Your task to perform on an android device: change notification settings in the gmail app Image 0: 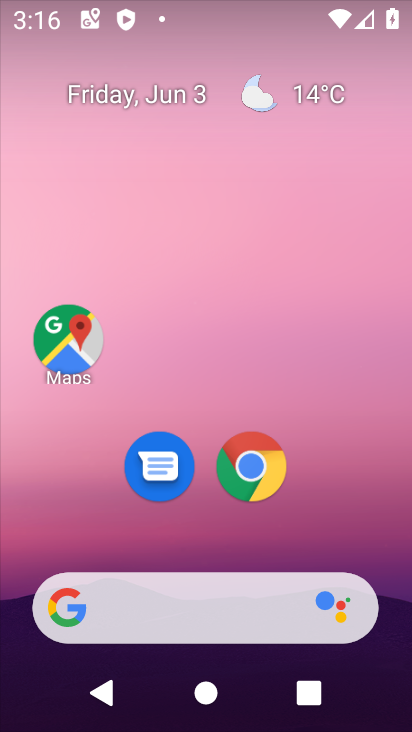
Step 0: drag from (353, 508) to (335, 284)
Your task to perform on an android device: change notification settings in the gmail app Image 1: 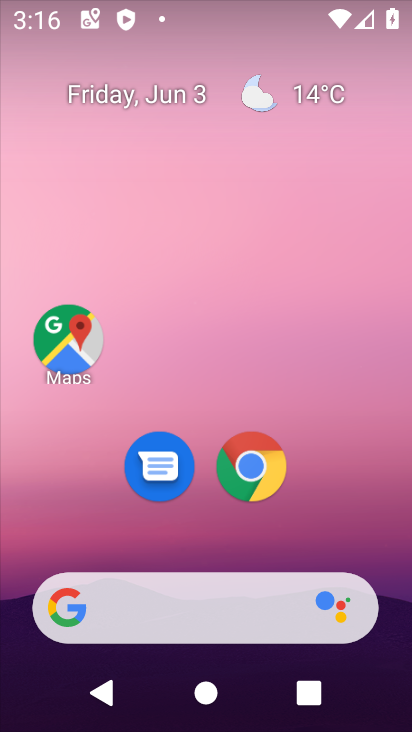
Step 1: drag from (368, 561) to (333, 147)
Your task to perform on an android device: change notification settings in the gmail app Image 2: 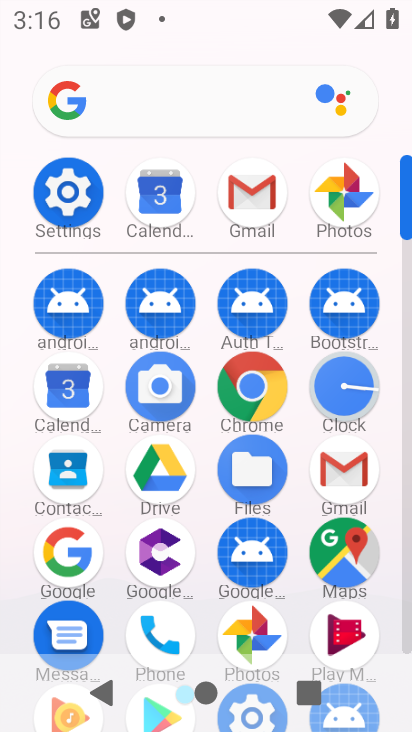
Step 2: click (254, 195)
Your task to perform on an android device: change notification settings in the gmail app Image 3: 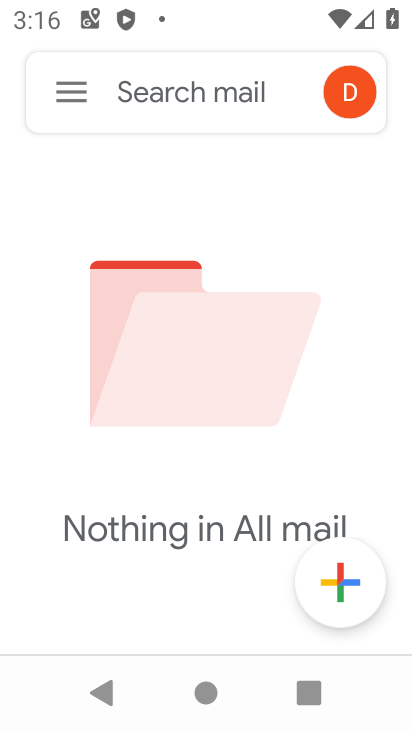
Step 3: click (62, 81)
Your task to perform on an android device: change notification settings in the gmail app Image 4: 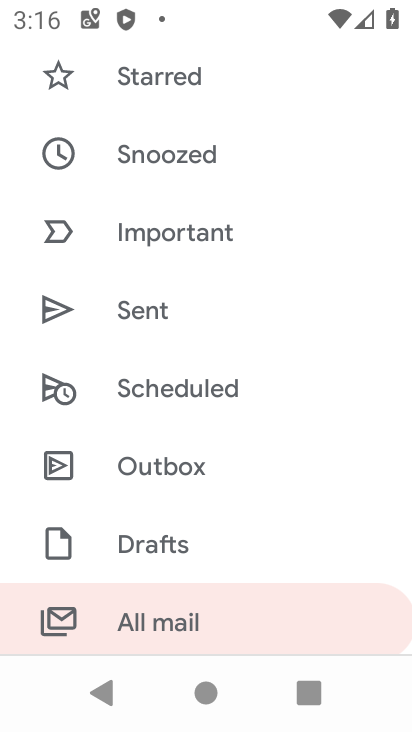
Step 4: drag from (250, 544) to (205, 236)
Your task to perform on an android device: change notification settings in the gmail app Image 5: 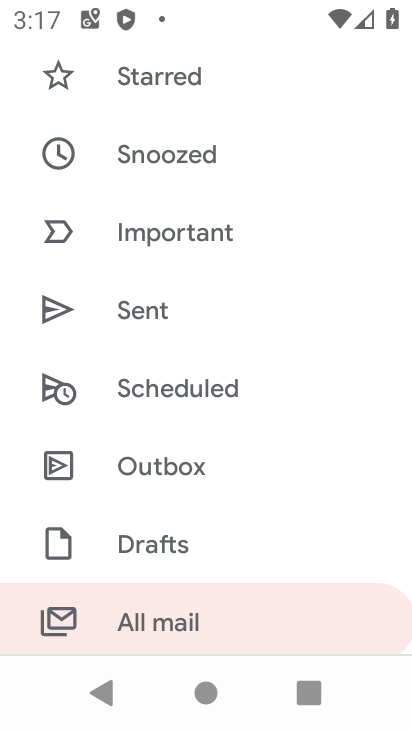
Step 5: drag from (294, 578) to (253, 170)
Your task to perform on an android device: change notification settings in the gmail app Image 6: 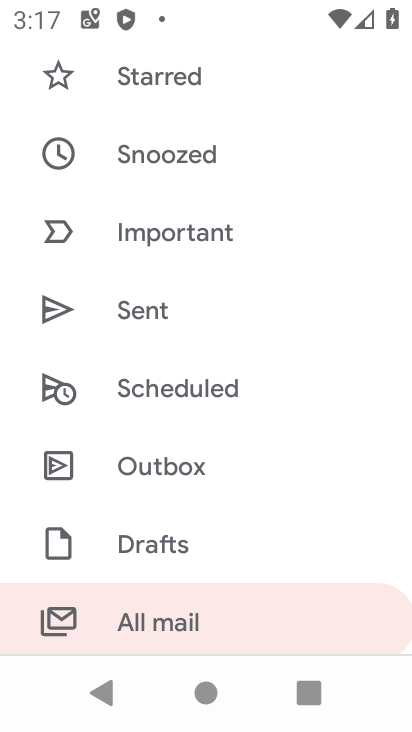
Step 6: drag from (253, 98) to (315, 579)
Your task to perform on an android device: change notification settings in the gmail app Image 7: 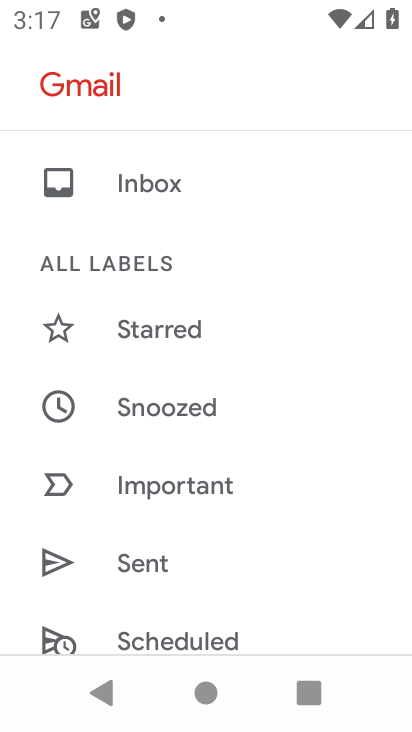
Step 7: drag from (301, 609) to (274, 92)
Your task to perform on an android device: change notification settings in the gmail app Image 8: 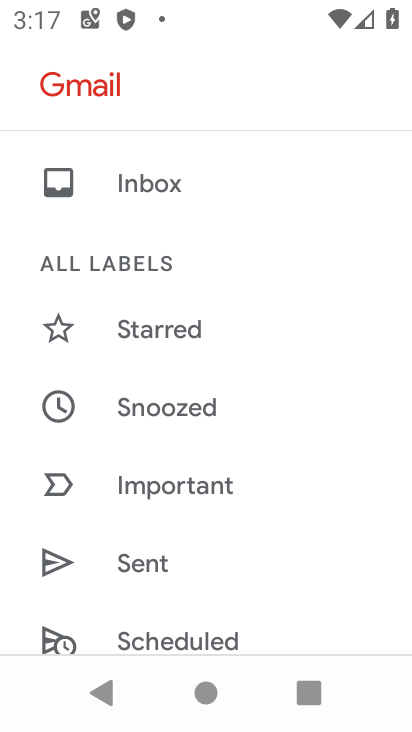
Step 8: drag from (283, 566) to (277, 201)
Your task to perform on an android device: change notification settings in the gmail app Image 9: 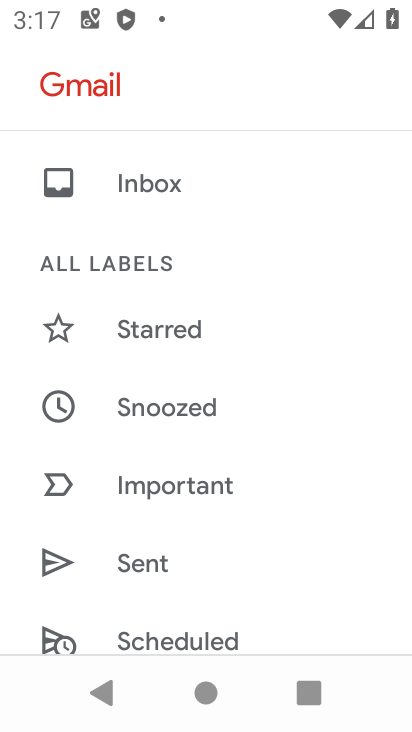
Step 9: drag from (214, 558) to (157, 174)
Your task to perform on an android device: change notification settings in the gmail app Image 10: 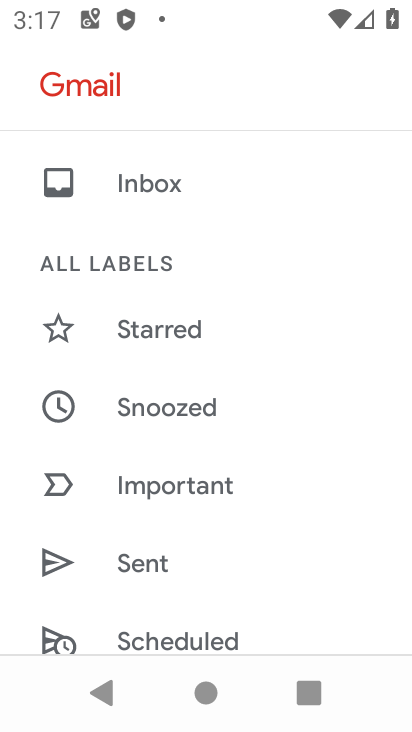
Step 10: drag from (272, 519) to (267, 413)
Your task to perform on an android device: change notification settings in the gmail app Image 11: 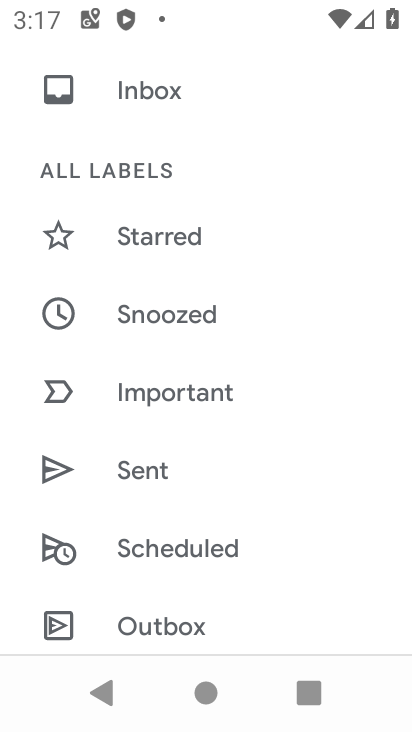
Step 11: click (267, 415)
Your task to perform on an android device: change notification settings in the gmail app Image 12: 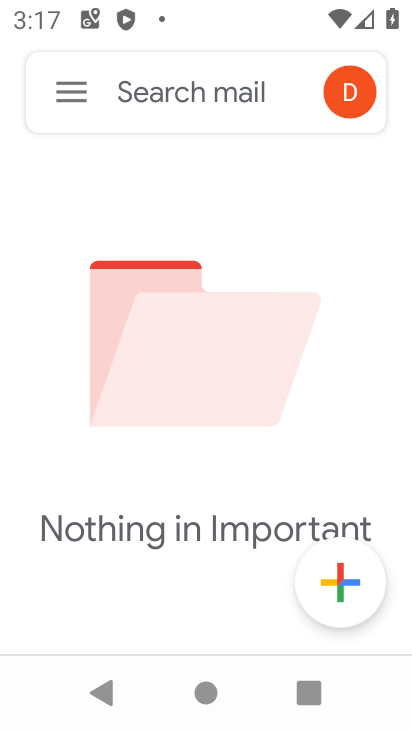
Step 12: click (62, 75)
Your task to perform on an android device: change notification settings in the gmail app Image 13: 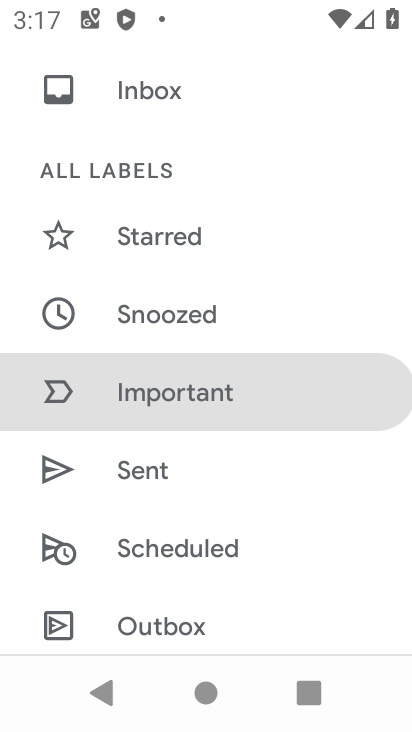
Step 13: drag from (352, 627) to (368, 323)
Your task to perform on an android device: change notification settings in the gmail app Image 14: 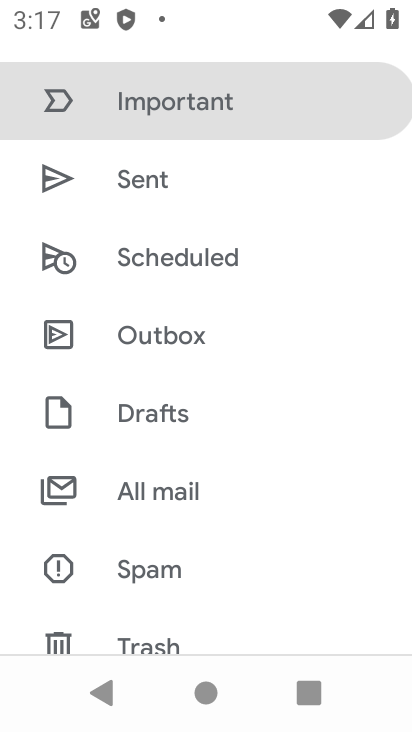
Step 14: click (382, 616)
Your task to perform on an android device: change notification settings in the gmail app Image 15: 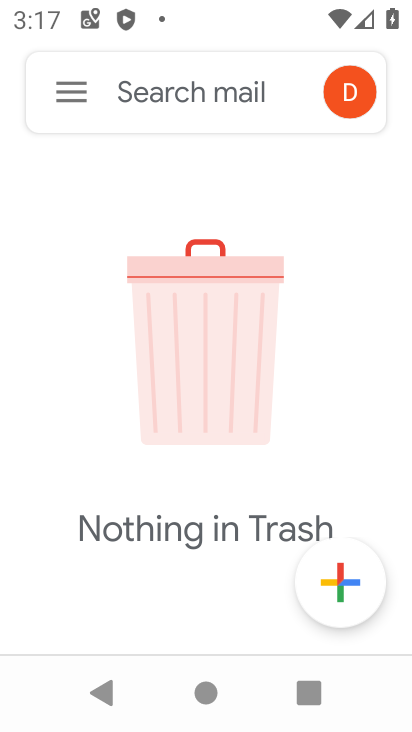
Step 15: click (51, 74)
Your task to perform on an android device: change notification settings in the gmail app Image 16: 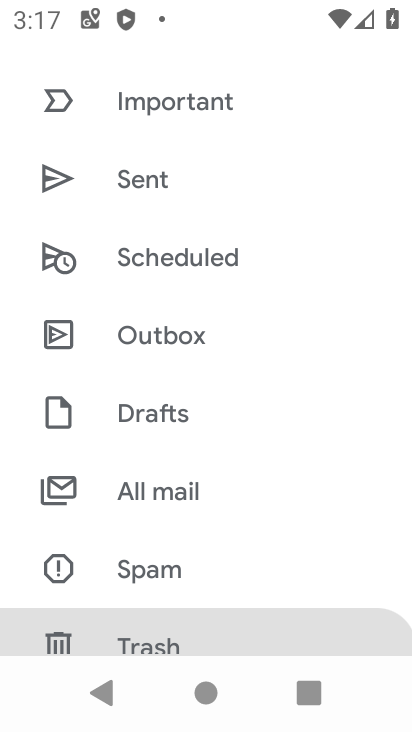
Step 16: click (52, 73)
Your task to perform on an android device: change notification settings in the gmail app Image 17: 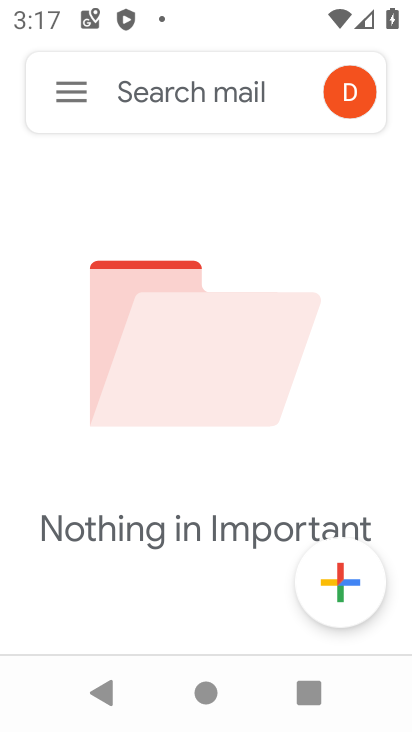
Step 17: click (74, 90)
Your task to perform on an android device: change notification settings in the gmail app Image 18: 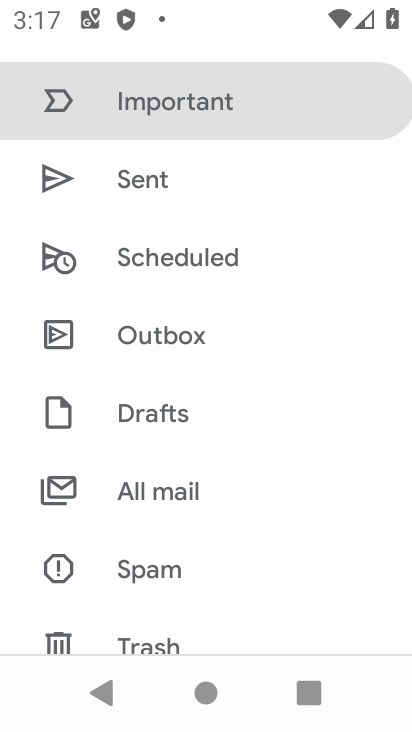
Step 18: drag from (280, 546) to (270, 171)
Your task to perform on an android device: change notification settings in the gmail app Image 19: 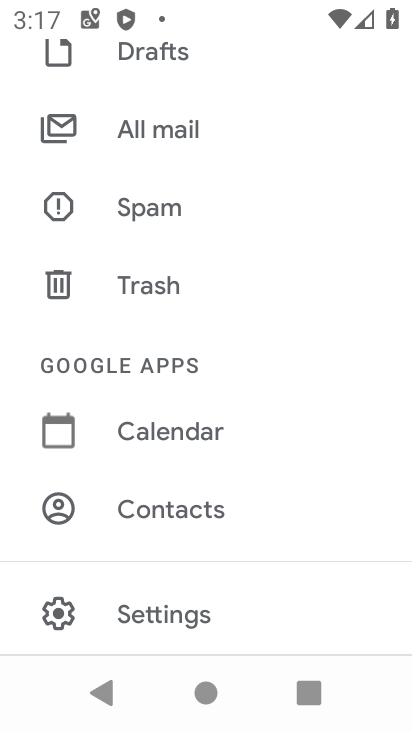
Step 19: drag from (273, 587) to (275, 204)
Your task to perform on an android device: change notification settings in the gmail app Image 20: 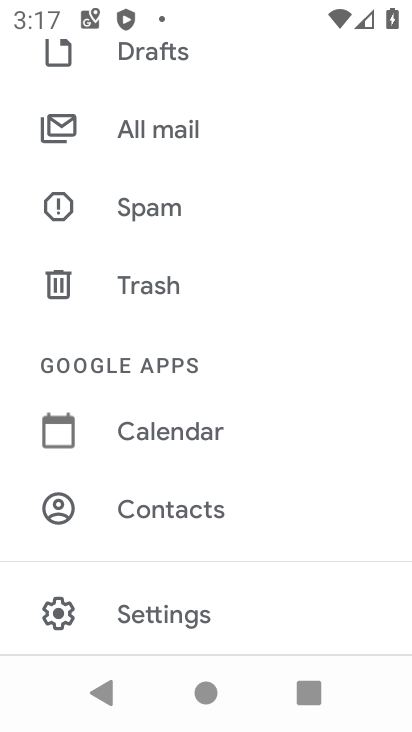
Step 20: click (166, 594)
Your task to perform on an android device: change notification settings in the gmail app Image 21: 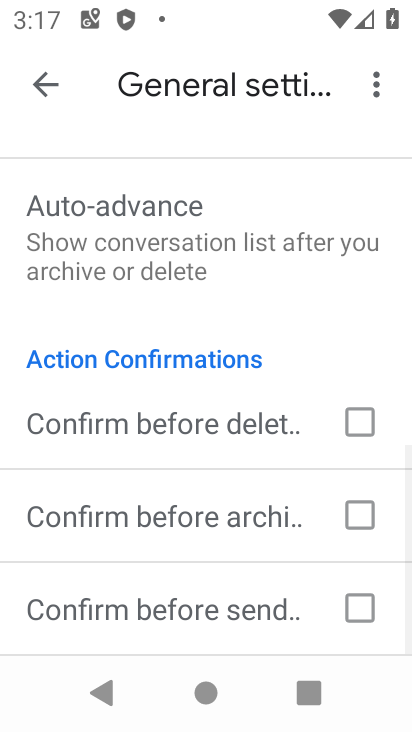
Step 21: drag from (140, 215) to (152, 518)
Your task to perform on an android device: change notification settings in the gmail app Image 22: 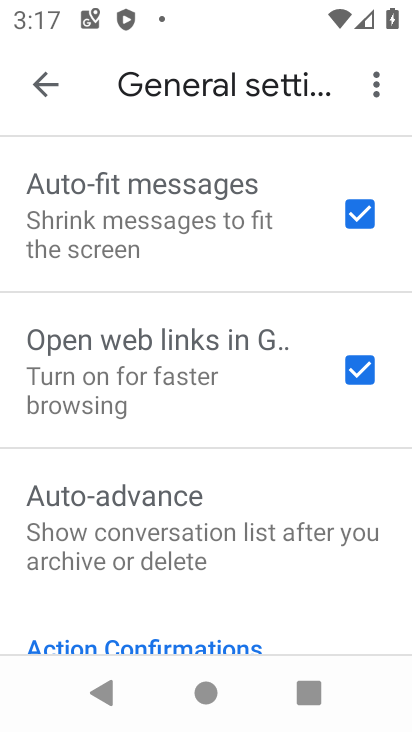
Step 22: click (41, 65)
Your task to perform on an android device: change notification settings in the gmail app Image 23: 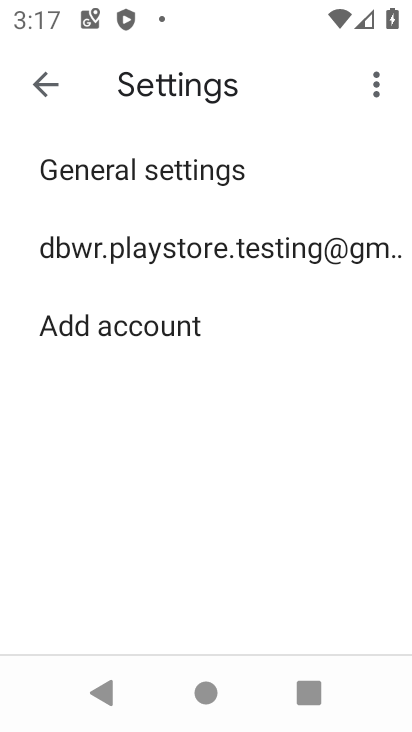
Step 23: click (75, 162)
Your task to perform on an android device: change notification settings in the gmail app Image 24: 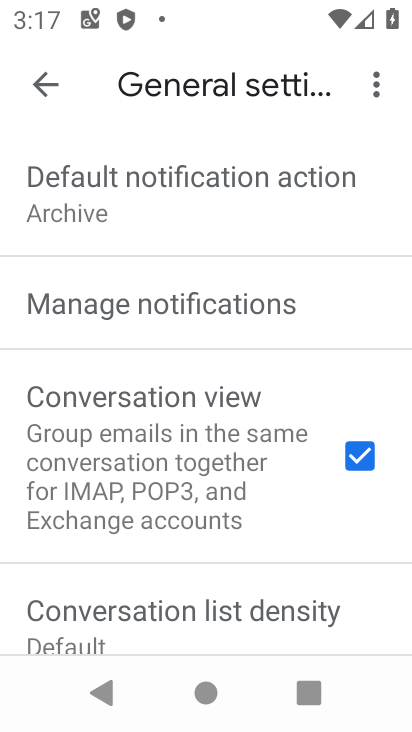
Step 24: click (166, 304)
Your task to perform on an android device: change notification settings in the gmail app Image 25: 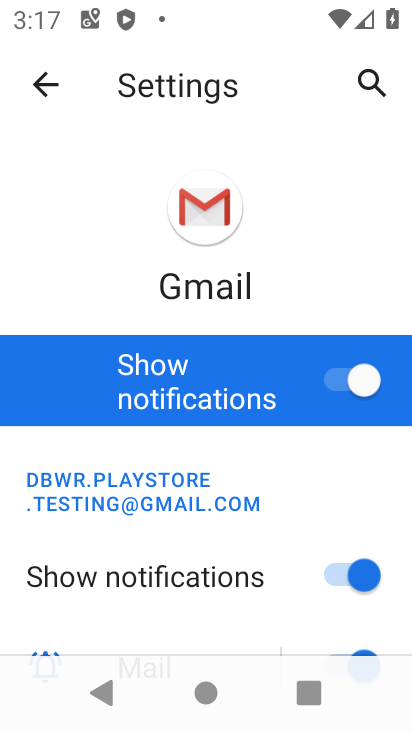
Step 25: click (330, 573)
Your task to perform on an android device: change notification settings in the gmail app Image 26: 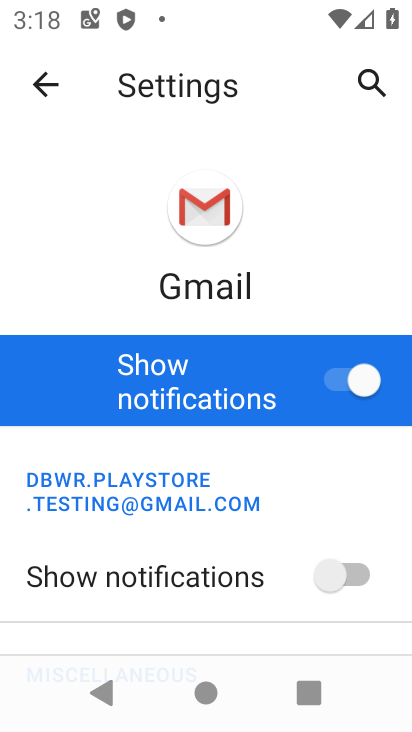
Step 26: task complete